Your task to perform on an android device: turn on bluetooth scan Image 0: 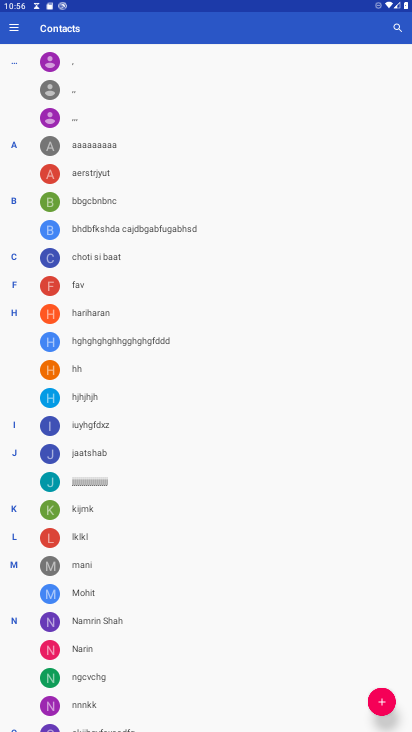
Step 0: press home button
Your task to perform on an android device: turn on bluetooth scan Image 1: 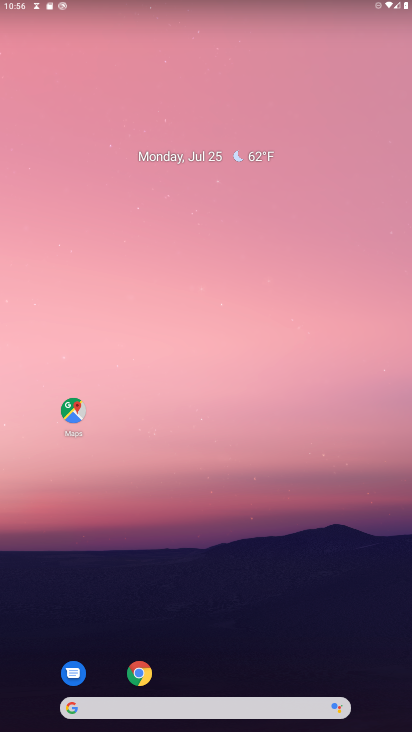
Step 1: drag from (256, 638) to (305, 148)
Your task to perform on an android device: turn on bluetooth scan Image 2: 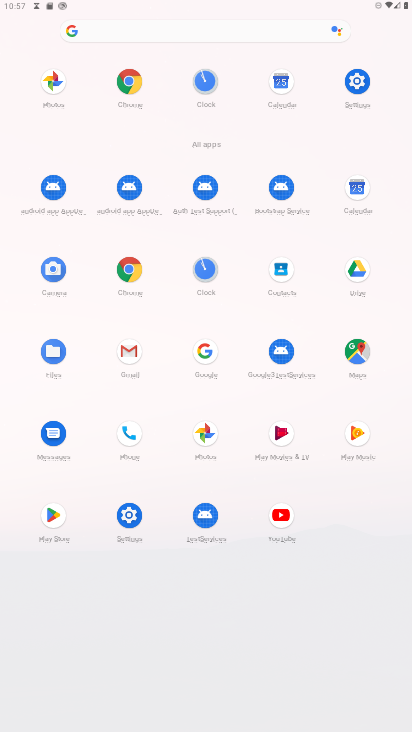
Step 2: click (357, 80)
Your task to perform on an android device: turn on bluetooth scan Image 3: 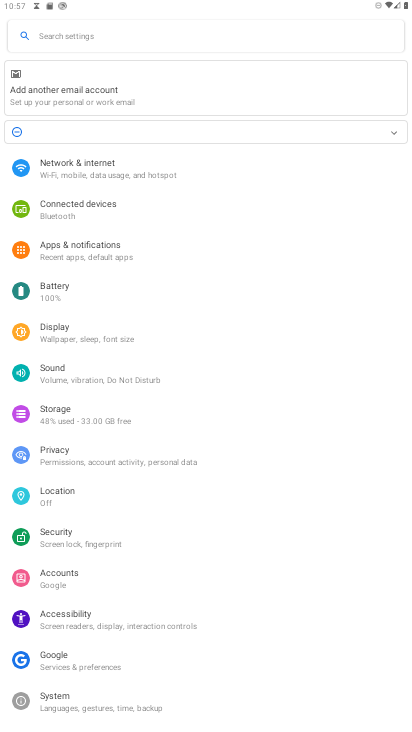
Step 3: click (74, 496)
Your task to perform on an android device: turn on bluetooth scan Image 4: 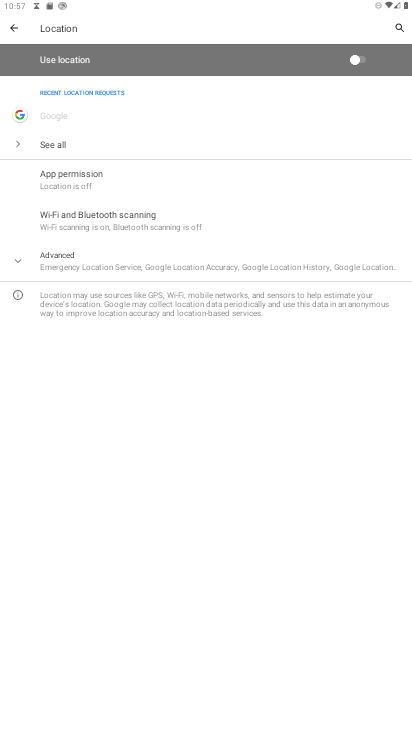
Step 4: click (130, 225)
Your task to perform on an android device: turn on bluetooth scan Image 5: 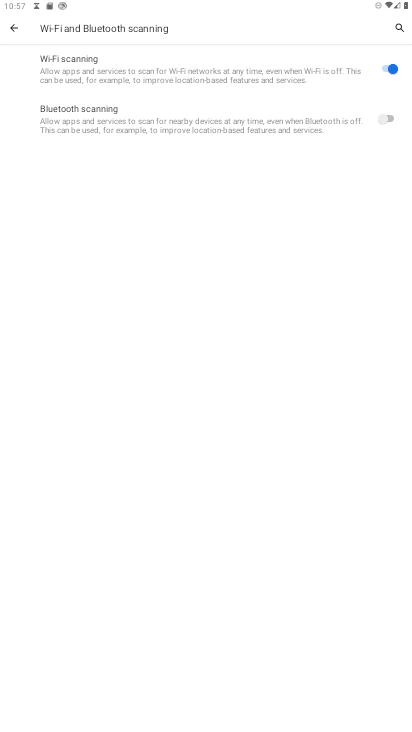
Step 5: click (387, 112)
Your task to perform on an android device: turn on bluetooth scan Image 6: 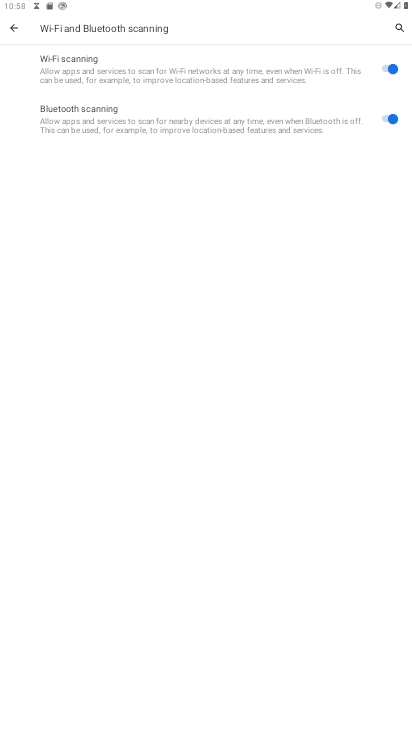
Step 6: task complete